Your task to perform on an android device: open the mobile data screen to see how much data has been used Image 0: 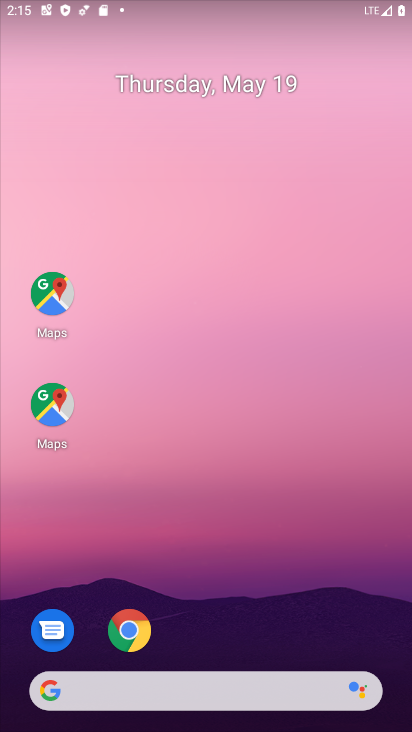
Step 0: drag from (223, 533) to (236, 43)
Your task to perform on an android device: open the mobile data screen to see how much data has been used Image 1: 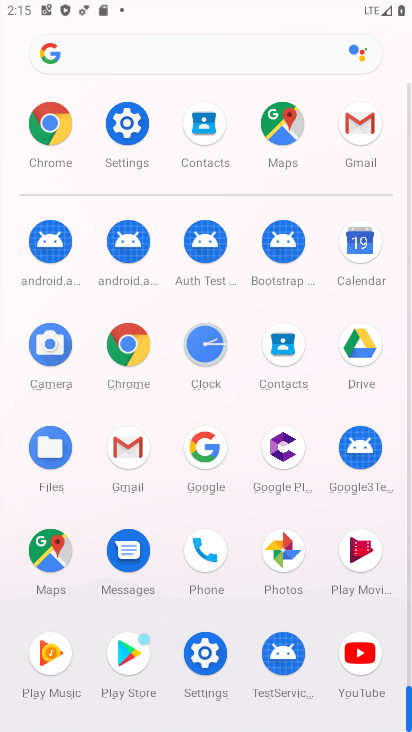
Step 1: drag from (8, 583) to (28, 240)
Your task to perform on an android device: open the mobile data screen to see how much data has been used Image 2: 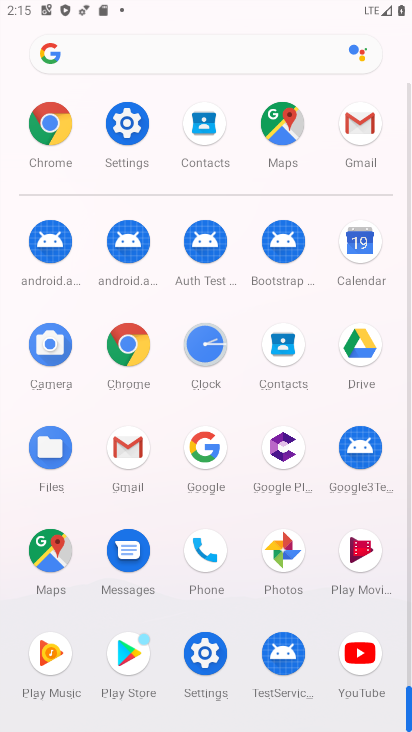
Step 2: click (201, 653)
Your task to perform on an android device: open the mobile data screen to see how much data has been used Image 3: 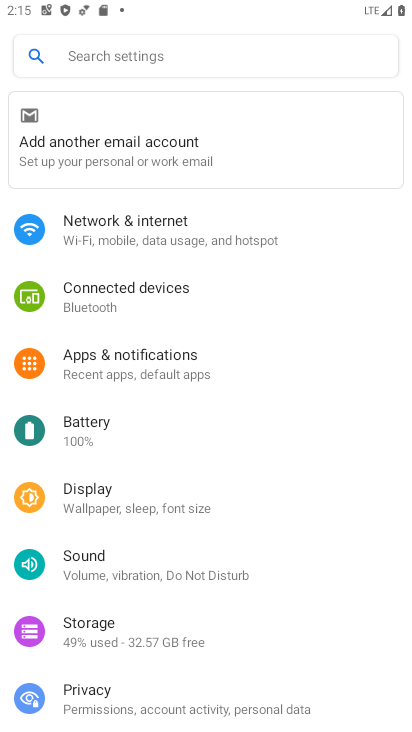
Step 3: click (188, 221)
Your task to perform on an android device: open the mobile data screen to see how much data has been used Image 4: 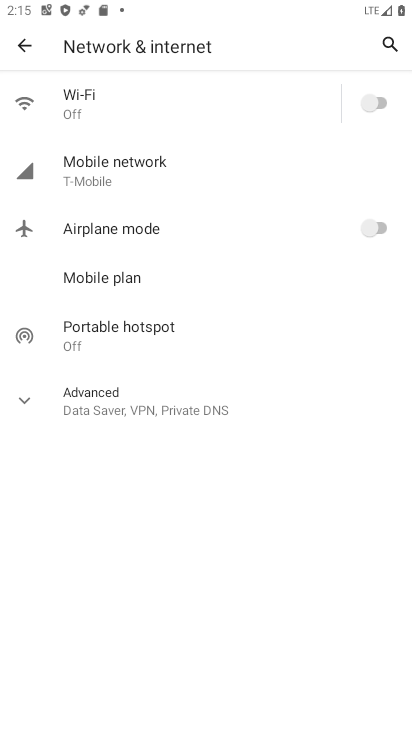
Step 4: click (130, 174)
Your task to perform on an android device: open the mobile data screen to see how much data has been used Image 5: 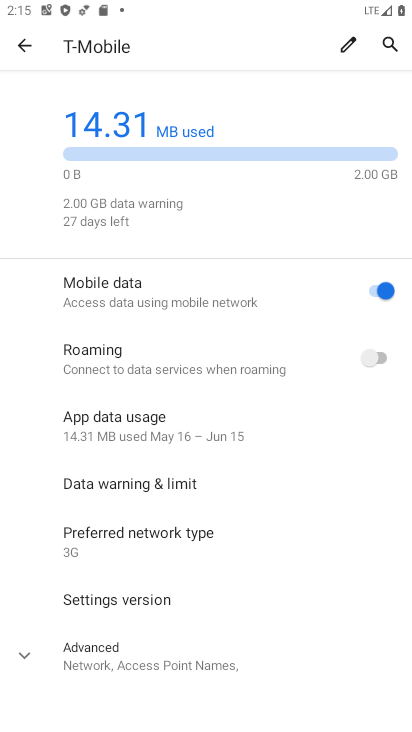
Step 5: task complete